Your task to perform on an android device: toggle show notifications on the lock screen Image 0: 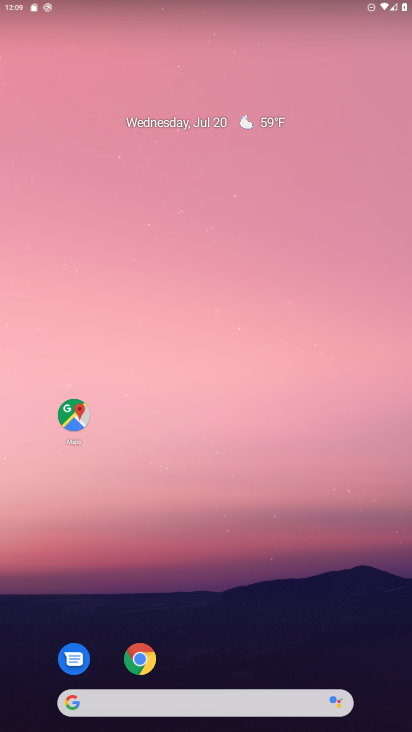
Step 0: press home button
Your task to perform on an android device: toggle show notifications on the lock screen Image 1: 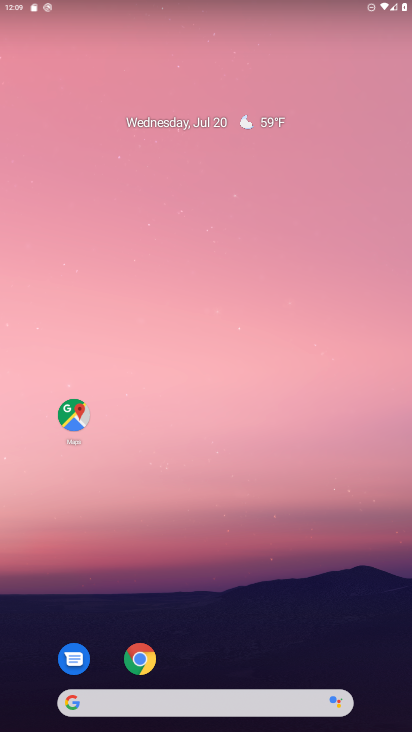
Step 1: drag from (266, 617) to (175, 107)
Your task to perform on an android device: toggle show notifications on the lock screen Image 2: 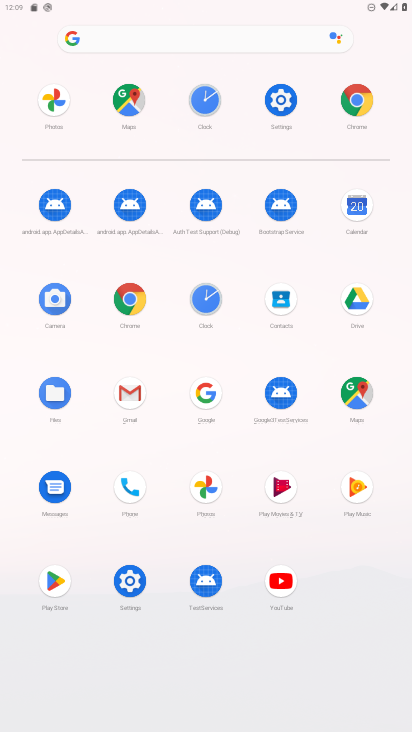
Step 2: click (279, 86)
Your task to perform on an android device: toggle show notifications on the lock screen Image 3: 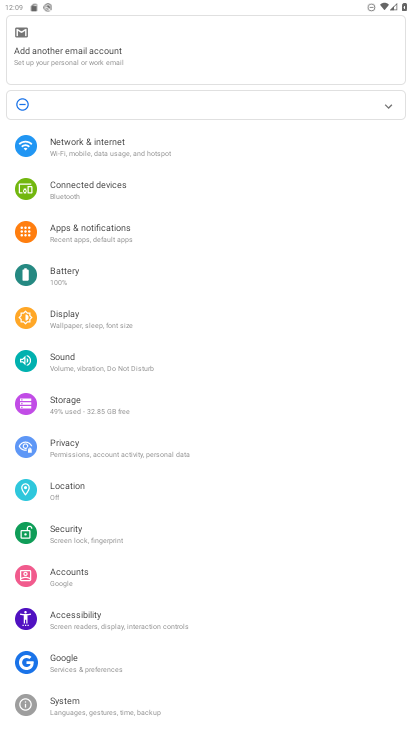
Step 3: click (83, 239)
Your task to perform on an android device: toggle show notifications on the lock screen Image 4: 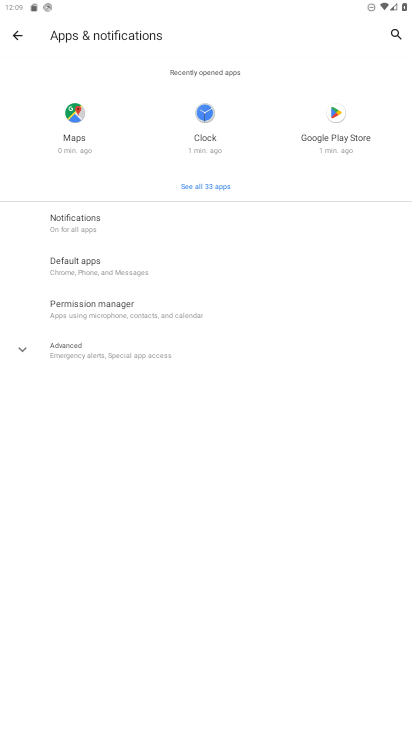
Step 4: click (96, 233)
Your task to perform on an android device: toggle show notifications on the lock screen Image 5: 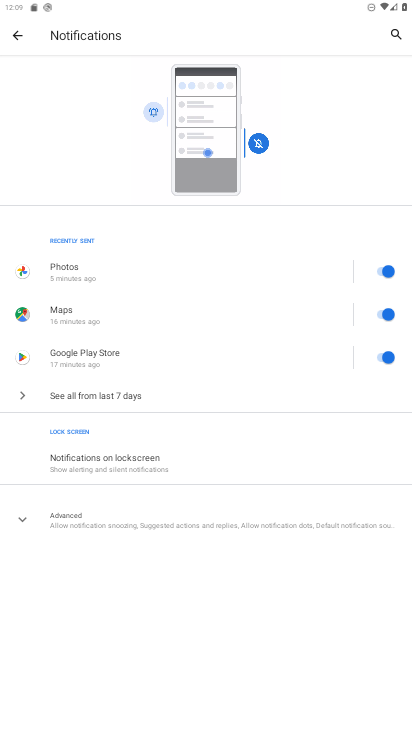
Step 5: drag from (146, 525) to (252, 612)
Your task to perform on an android device: toggle show notifications on the lock screen Image 6: 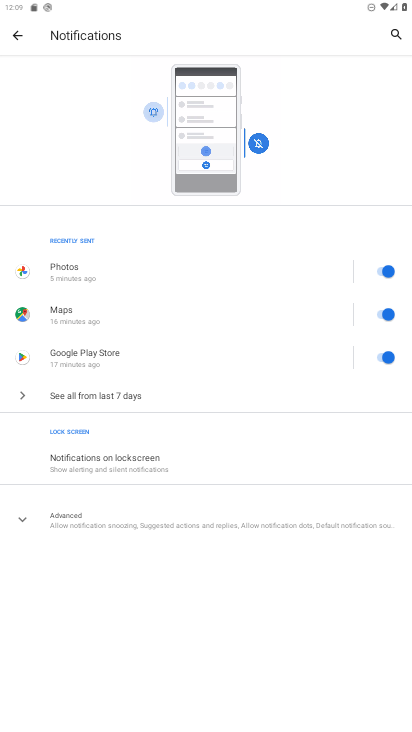
Step 6: click (158, 450)
Your task to perform on an android device: toggle show notifications on the lock screen Image 7: 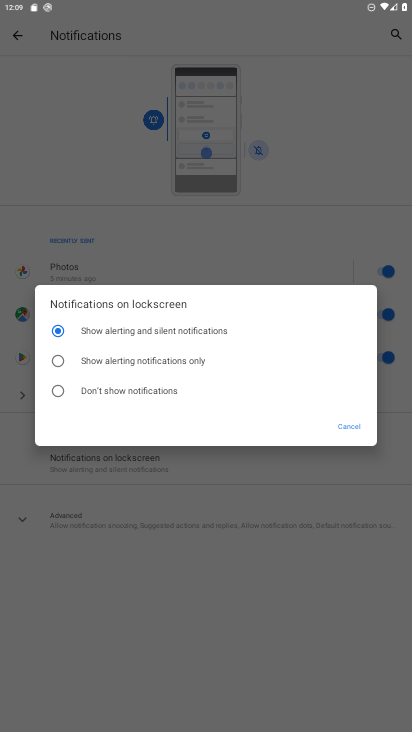
Step 7: click (160, 364)
Your task to perform on an android device: toggle show notifications on the lock screen Image 8: 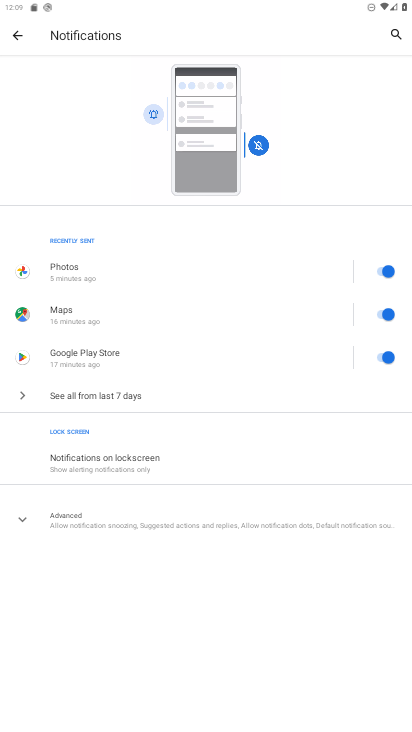
Step 8: task complete